Your task to perform on an android device: toggle javascript in the chrome app Image 0: 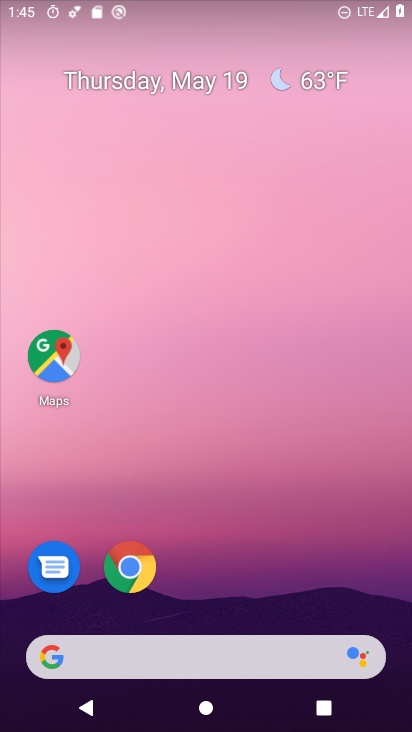
Step 0: press home button
Your task to perform on an android device: toggle javascript in the chrome app Image 1: 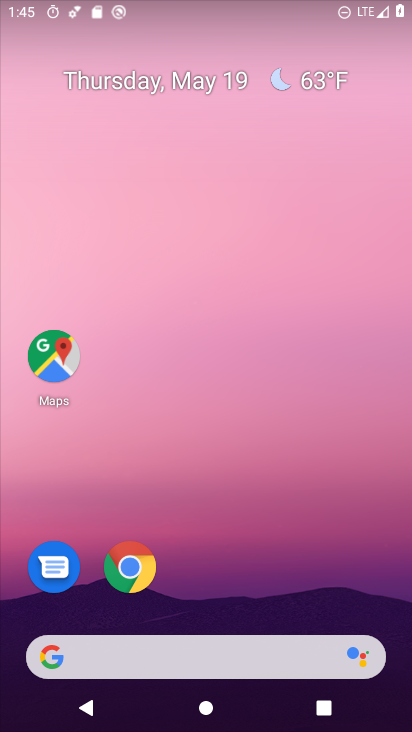
Step 1: click (132, 570)
Your task to perform on an android device: toggle javascript in the chrome app Image 2: 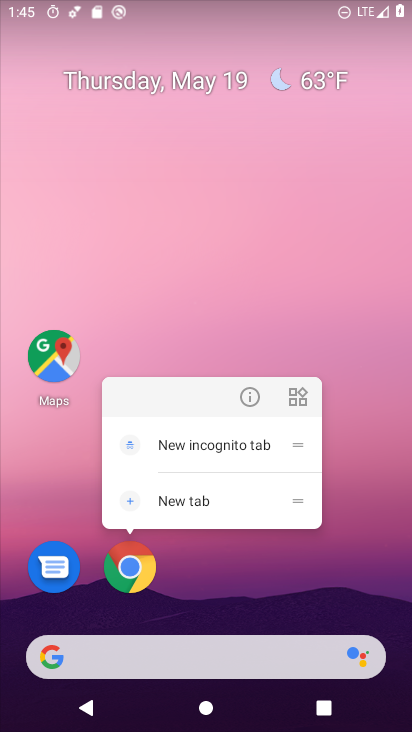
Step 2: click (135, 574)
Your task to perform on an android device: toggle javascript in the chrome app Image 3: 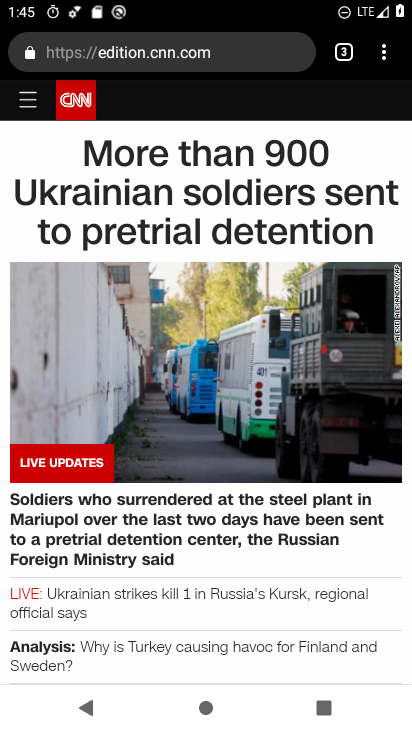
Step 3: drag from (384, 56) to (235, 580)
Your task to perform on an android device: toggle javascript in the chrome app Image 4: 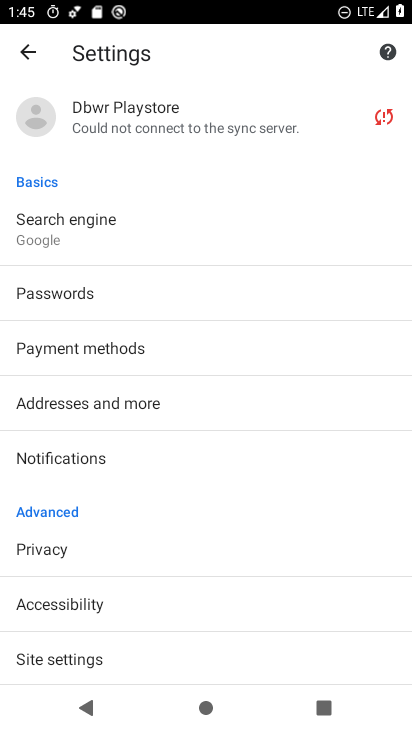
Step 4: drag from (145, 606) to (267, 430)
Your task to perform on an android device: toggle javascript in the chrome app Image 5: 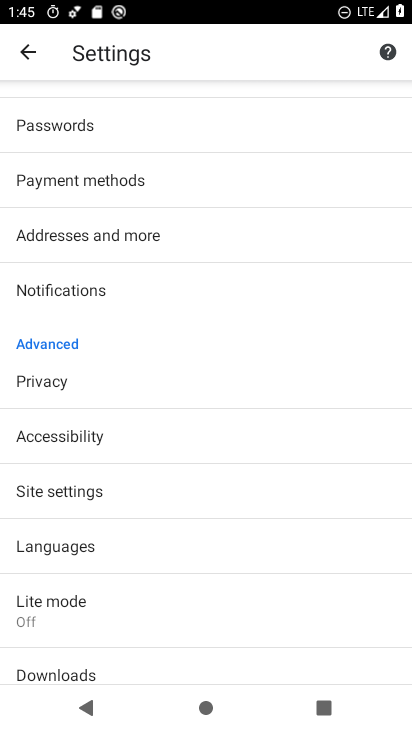
Step 5: click (92, 495)
Your task to perform on an android device: toggle javascript in the chrome app Image 6: 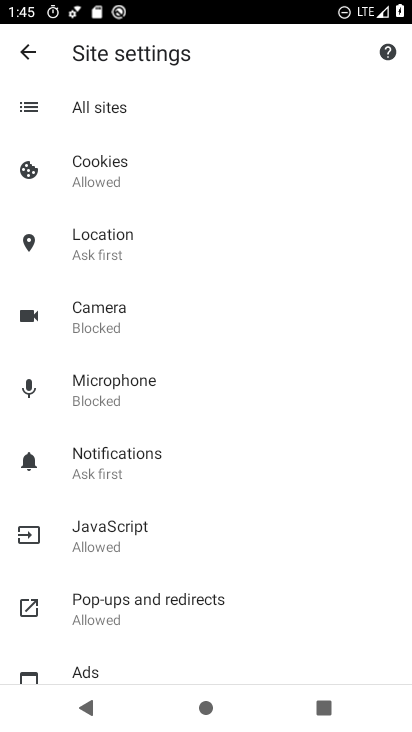
Step 6: click (113, 535)
Your task to perform on an android device: toggle javascript in the chrome app Image 7: 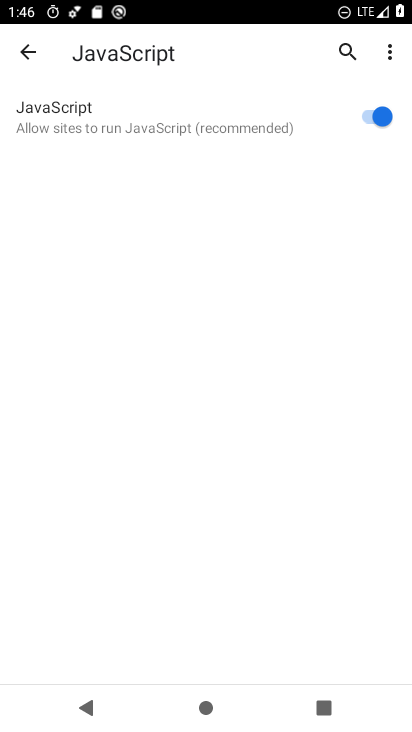
Step 7: click (370, 118)
Your task to perform on an android device: toggle javascript in the chrome app Image 8: 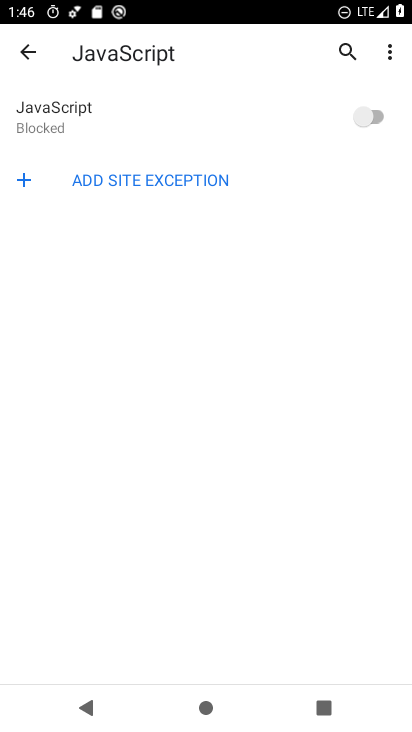
Step 8: task complete